Your task to perform on an android device: open a bookmark in the chrome app Image 0: 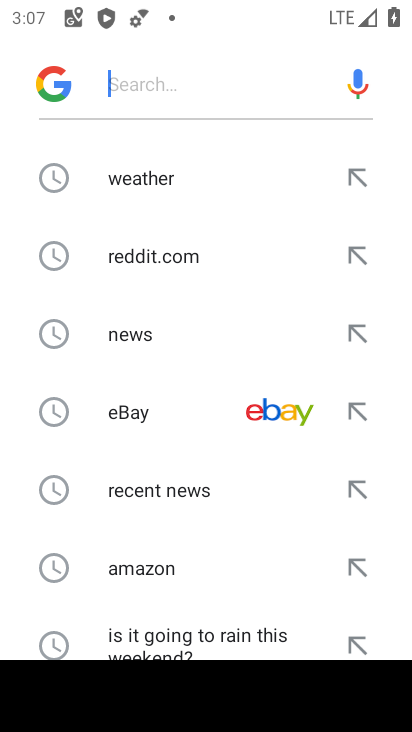
Step 0: press home button
Your task to perform on an android device: open a bookmark in the chrome app Image 1: 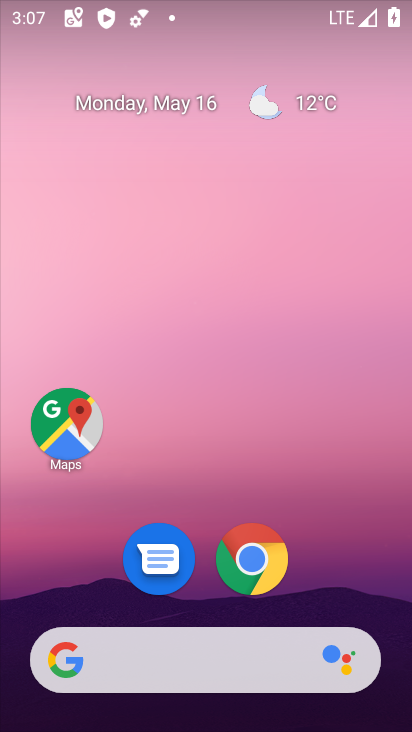
Step 1: click (255, 577)
Your task to perform on an android device: open a bookmark in the chrome app Image 2: 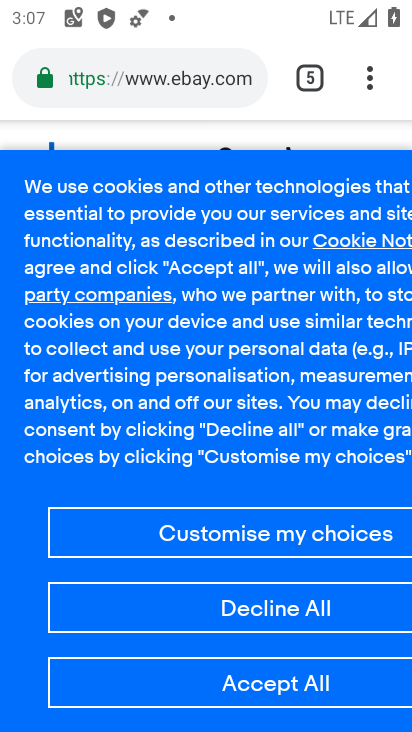
Step 2: drag from (375, 75) to (116, 298)
Your task to perform on an android device: open a bookmark in the chrome app Image 3: 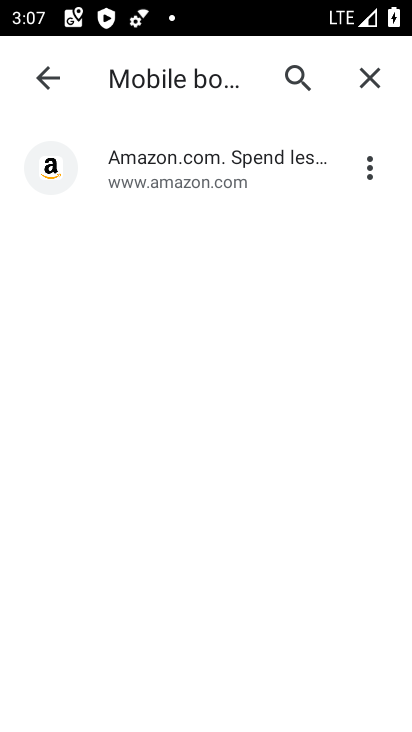
Step 3: click (209, 165)
Your task to perform on an android device: open a bookmark in the chrome app Image 4: 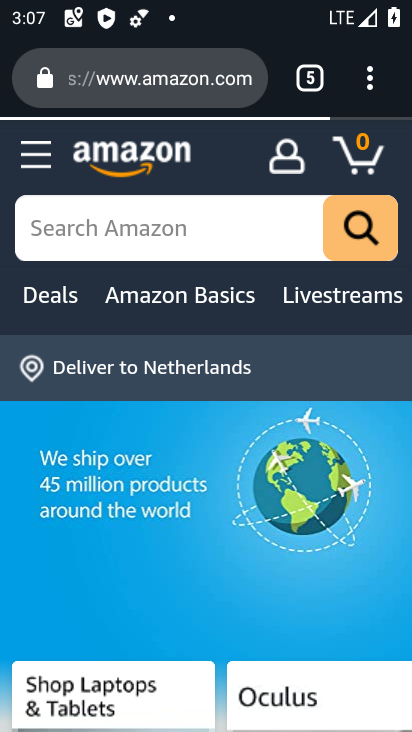
Step 4: task complete